Your task to perform on an android device: uninstall "WhatsApp Messenger" Image 0: 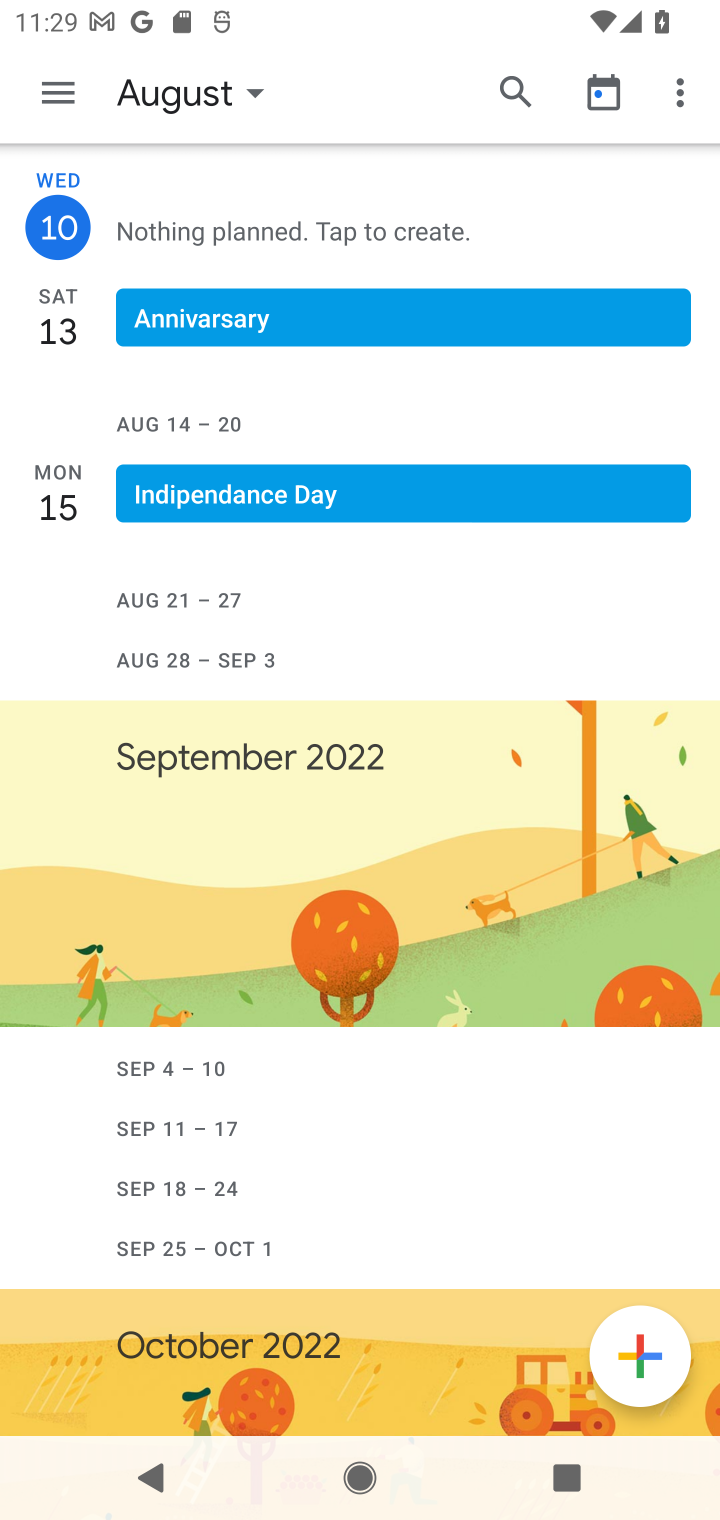
Step 0: press home button
Your task to perform on an android device: uninstall "WhatsApp Messenger" Image 1: 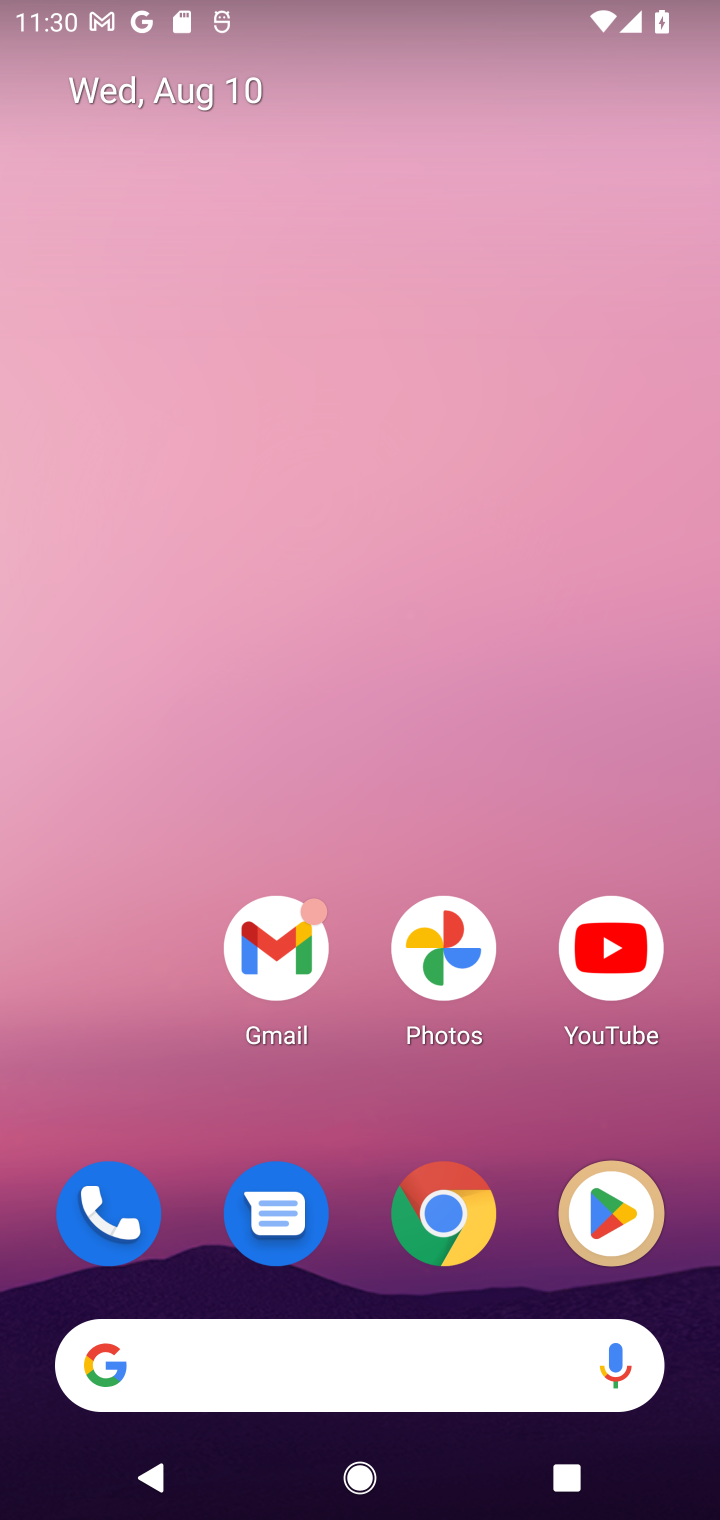
Step 1: drag from (261, 1275) to (255, 194)
Your task to perform on an android device: uninstall "WhatsApp Messenger" Image 2: 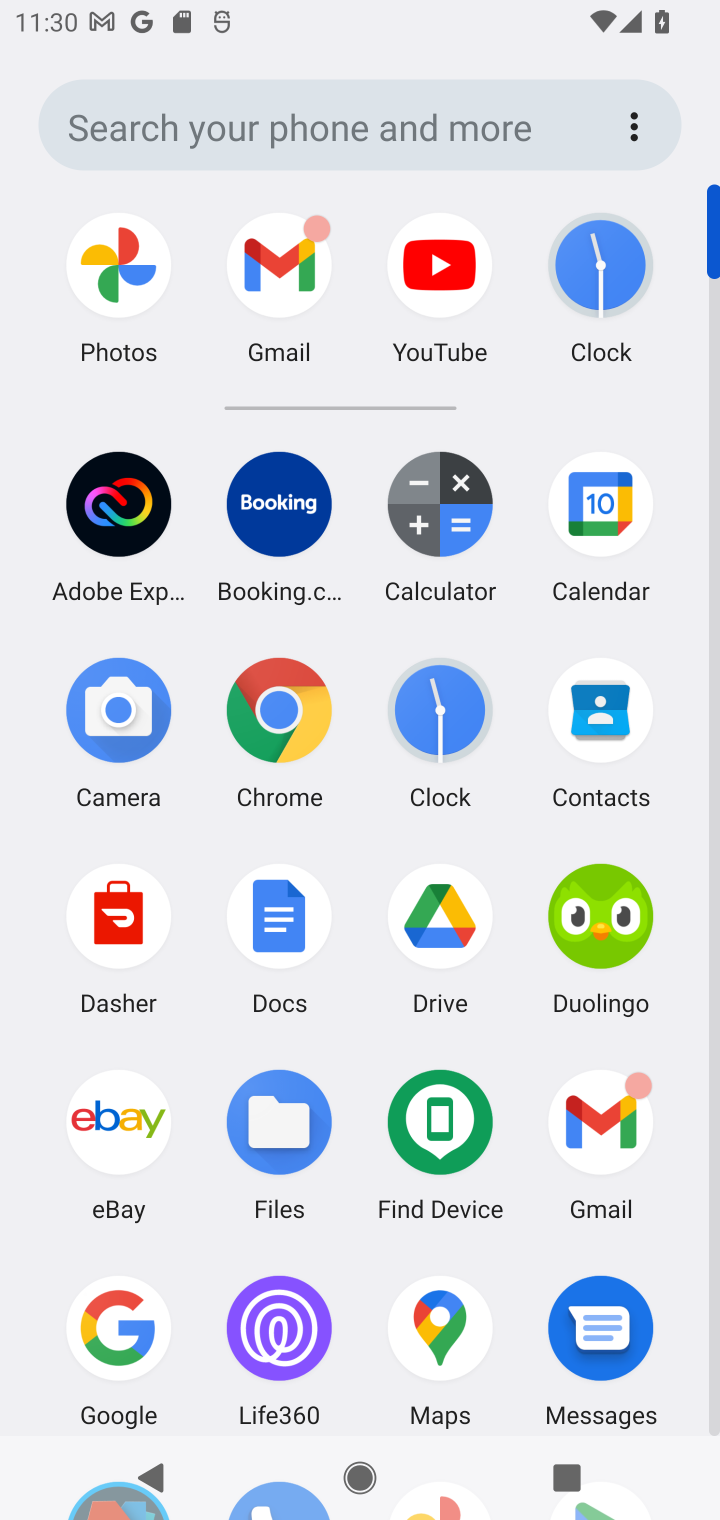
Step 2: drag from (507, 1289) to (508, 751)
Your task to perform on an android device: uninstall "WhatsApp Messenger" Image 3: 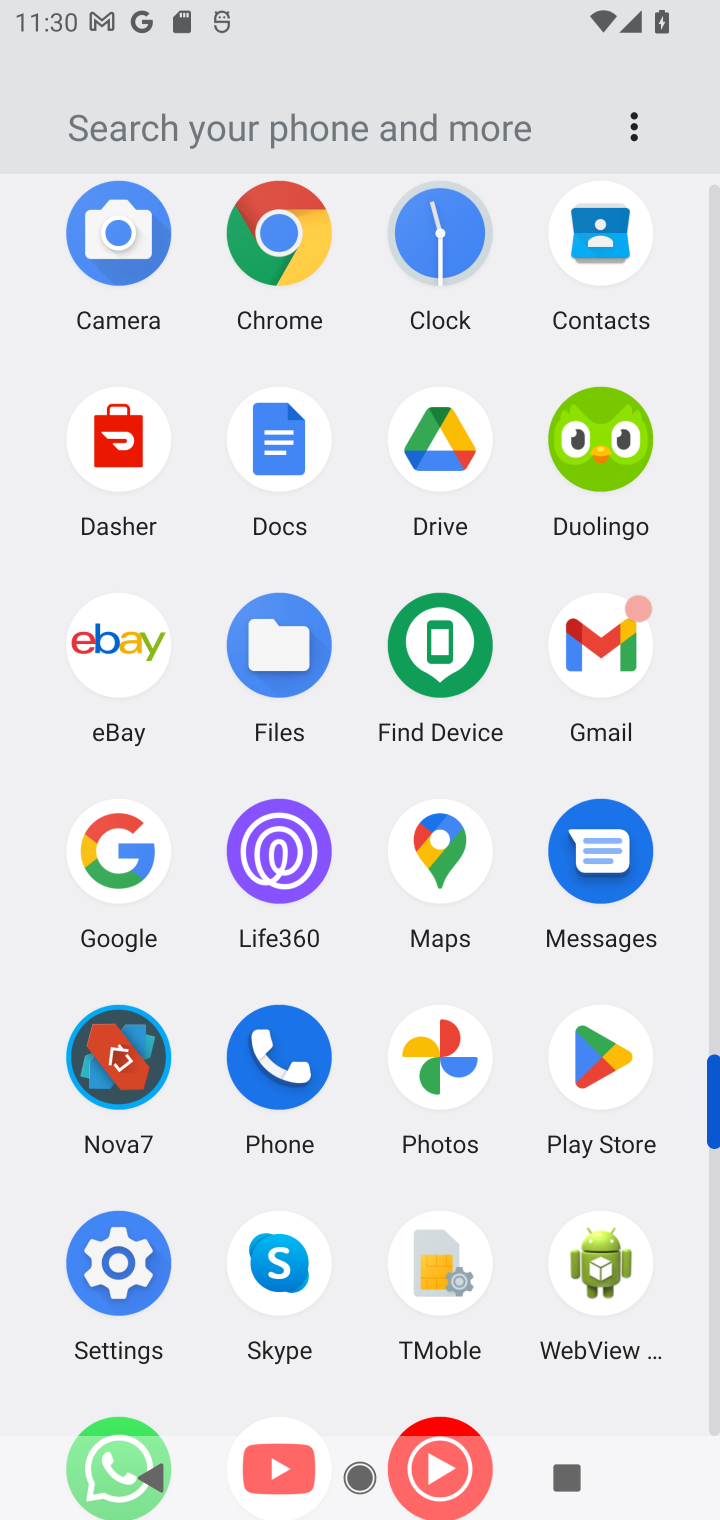
Step 3: click (603, 1056)
Your task to perform on an android device: uninstall "WhatsApp Messenger" Image 4: 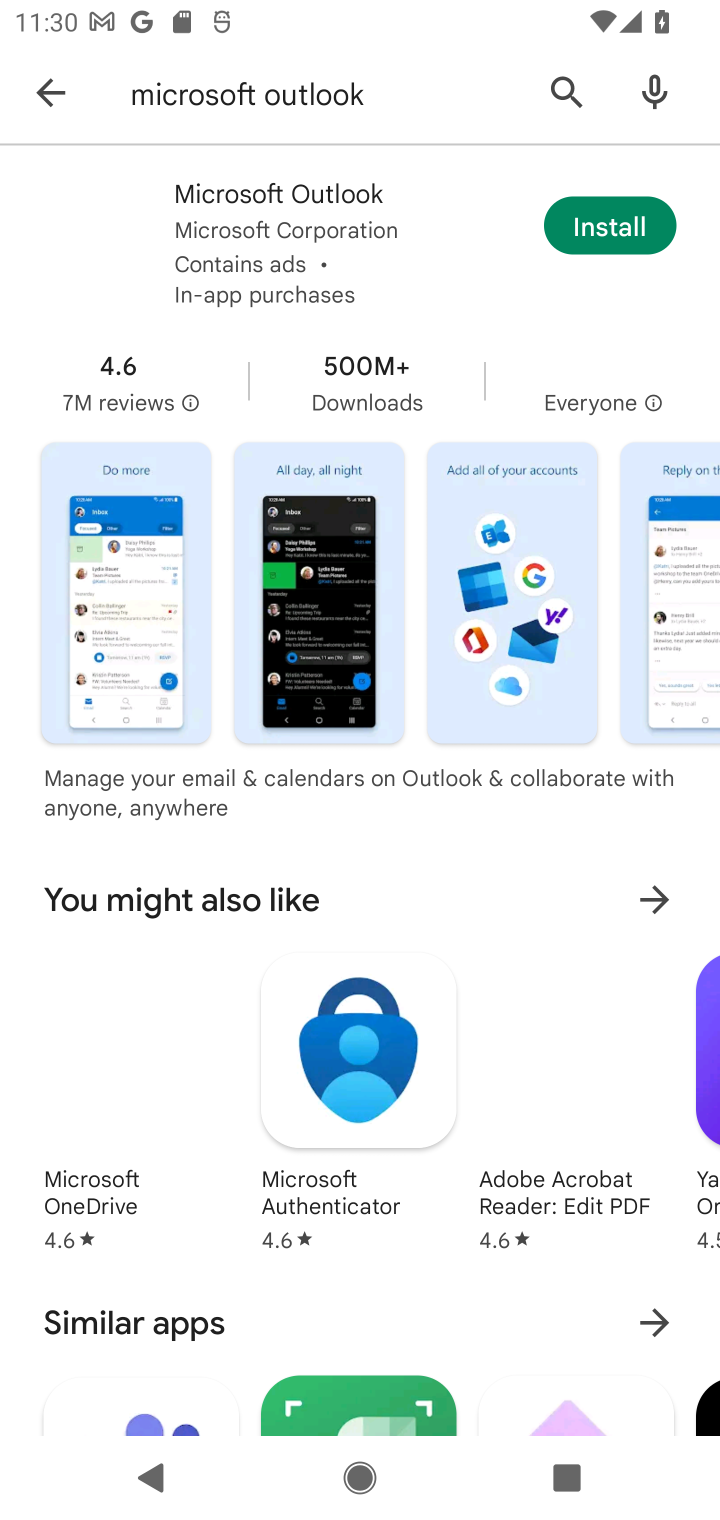
Step 4: press back button
Your task to perform on an android device: uninstall "WhatsApp Messenger" Image 5: 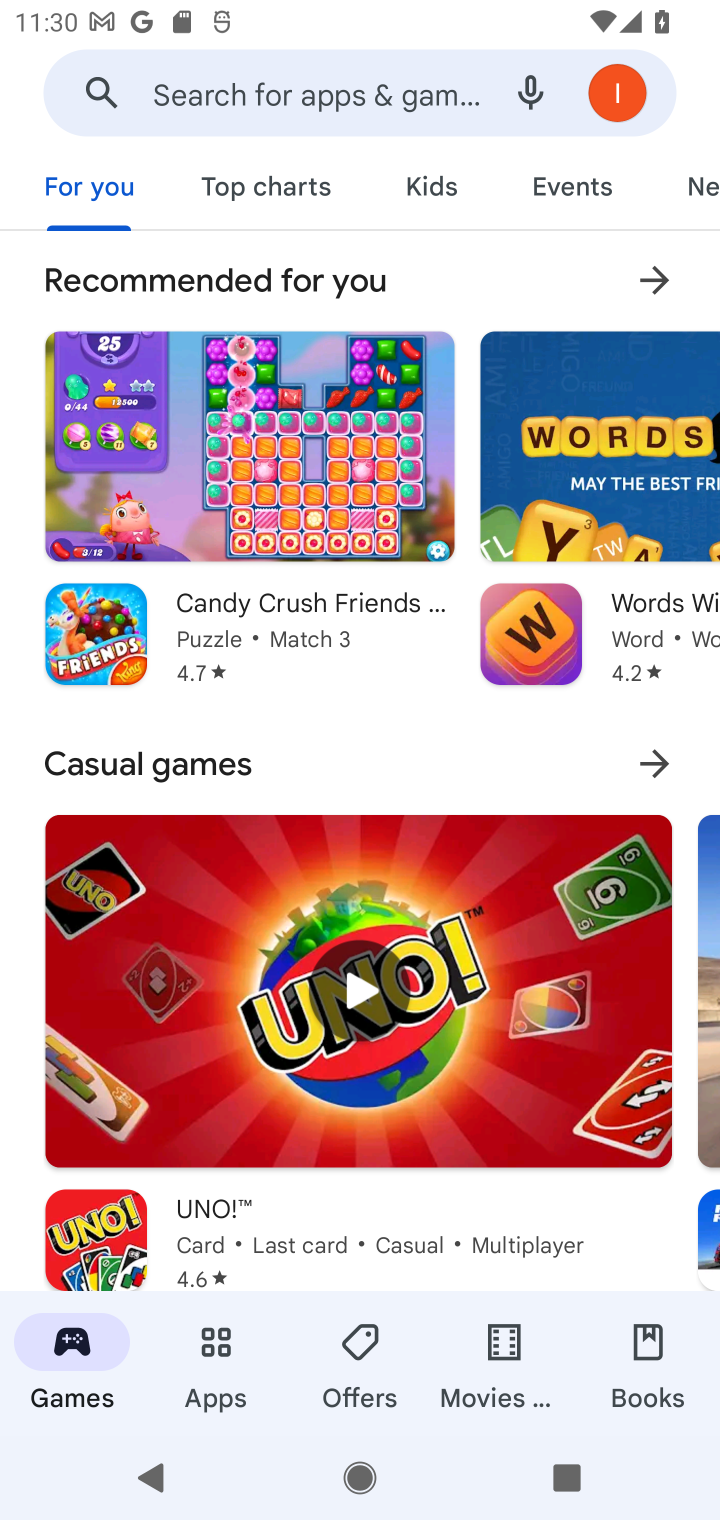
Step 5: click (286, 87)
Your task to perform on an android device: uninstall "WhatsApp Messenger" Image 6: 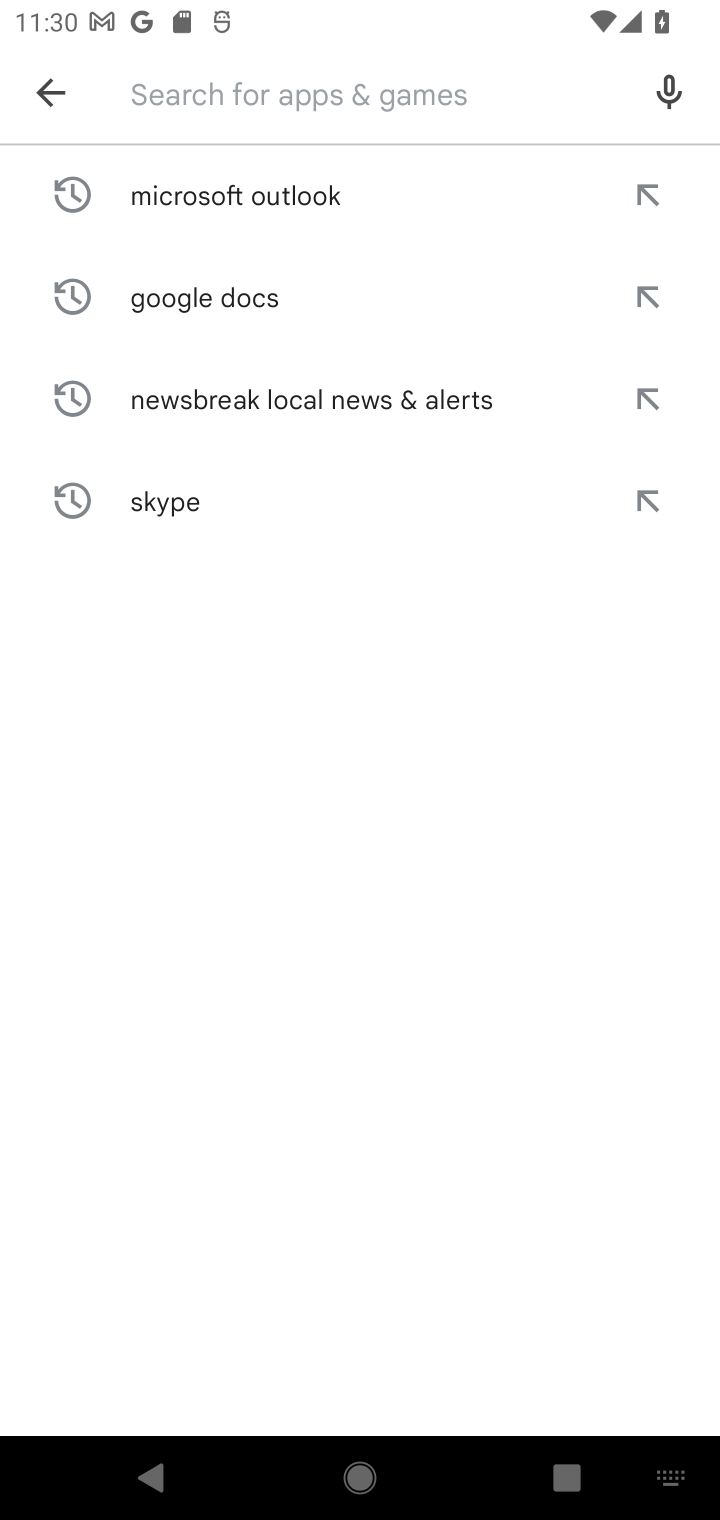
Step 6: click (239, 96)
Your task to perform on an android device: uninstall "WhatsApp Messenger" Image 7: 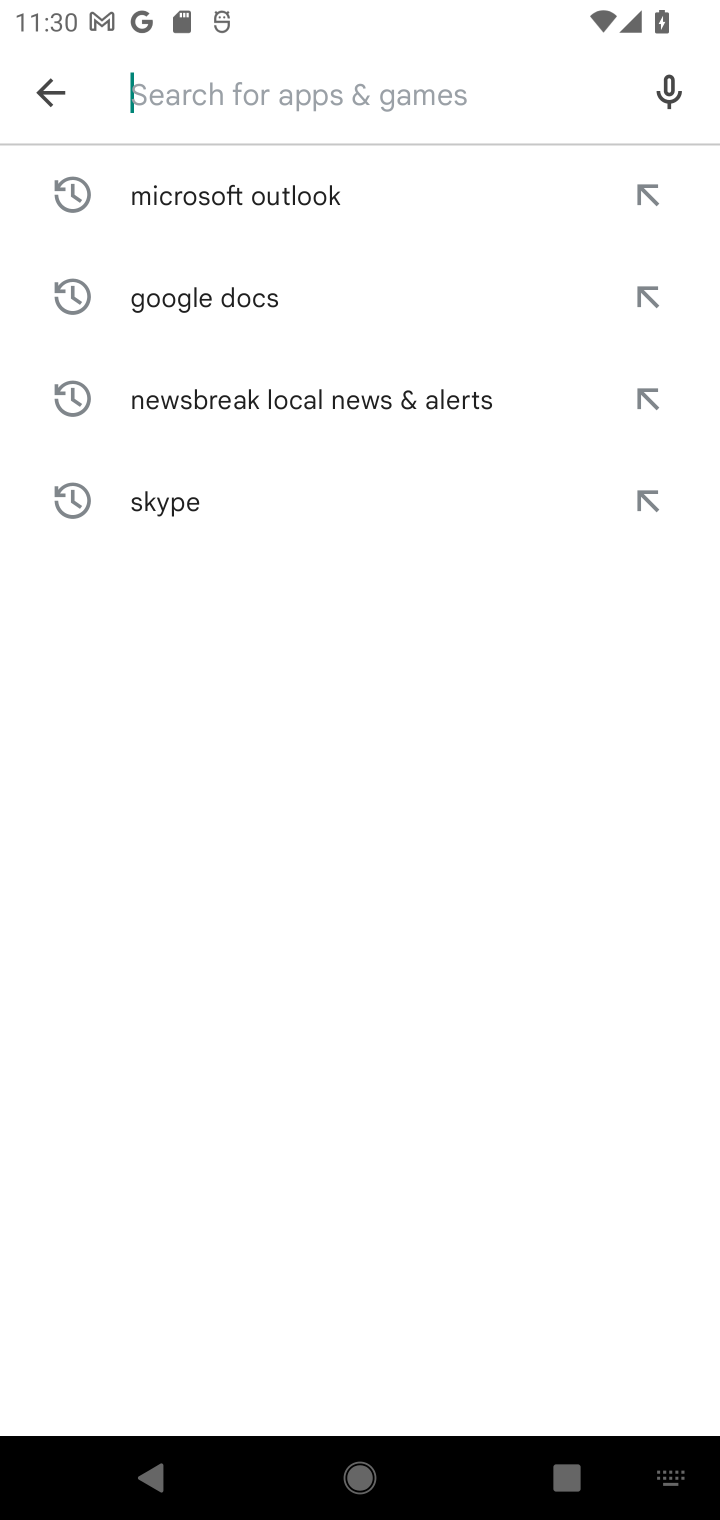
Step 7: type "WhatsApp Messenger"
Your task to perform on an android device: uninstall "WhatsApp Messenger" Image 8: 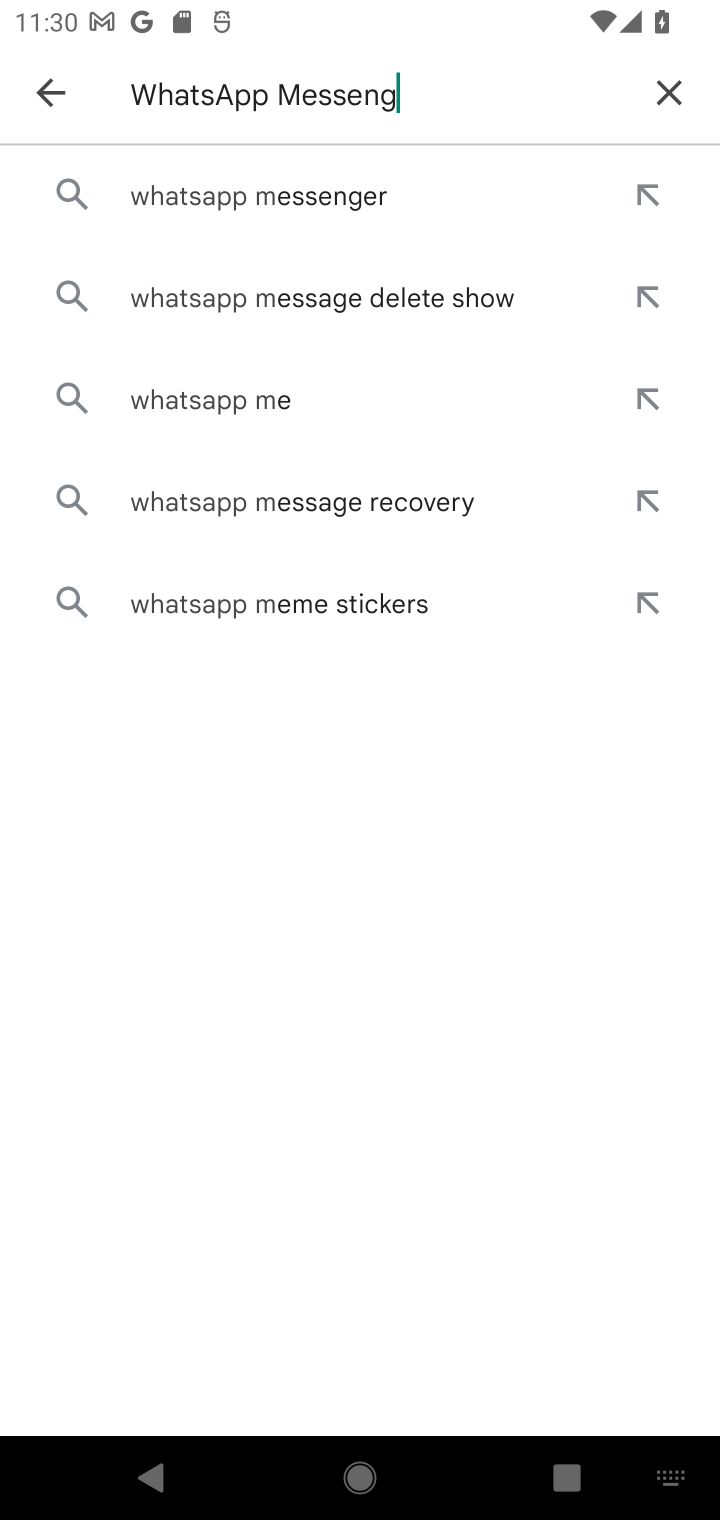
Step 8: type ""
Your task to perform on an android device: uninstall "WhatsApp Messenger" Image 9: 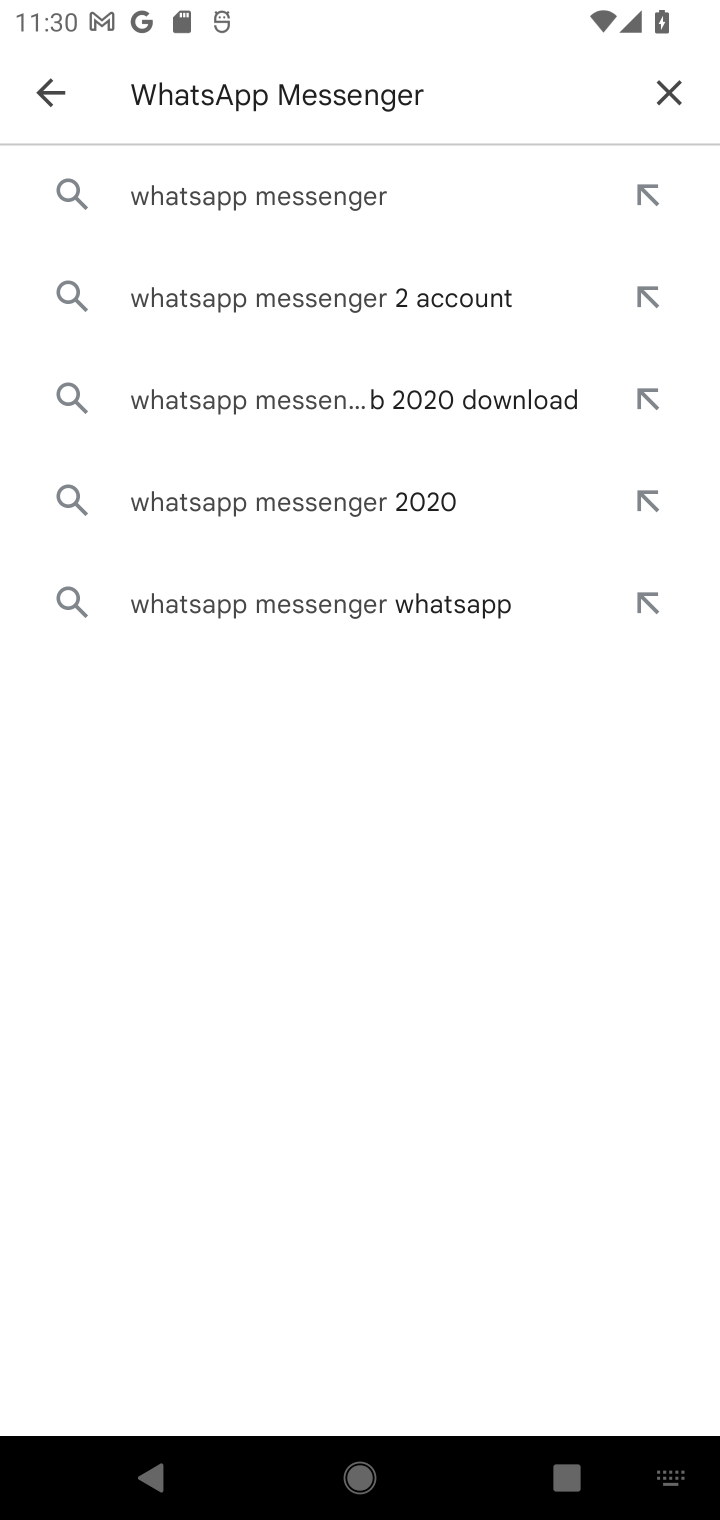
Step 9: click (267, 208)
Your task to perform on an android device: uninstall "WhatsApp Messenger" Image 10: 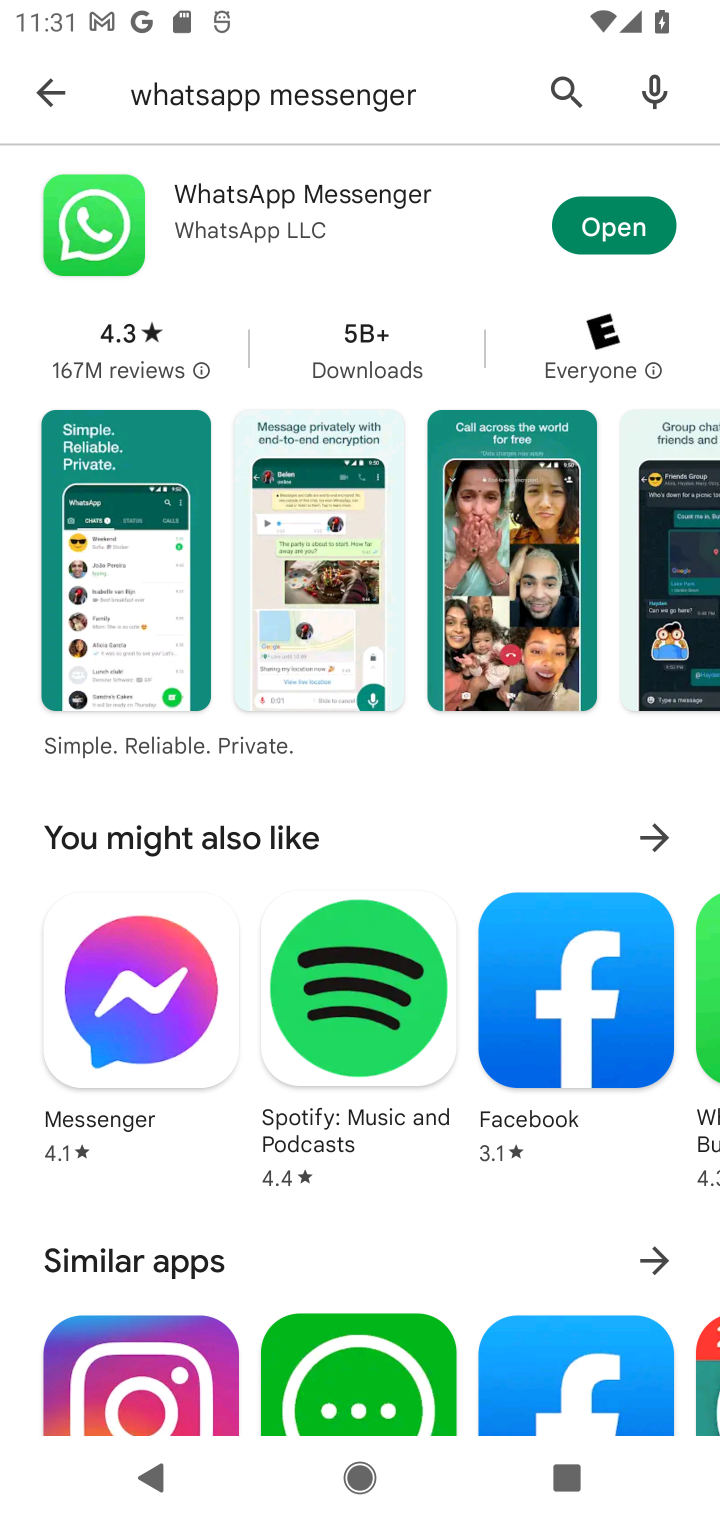
Step 10: click (270, 211)
Your task to perform on an android device: uninstall "WhatsApp Messenger" Image 11: 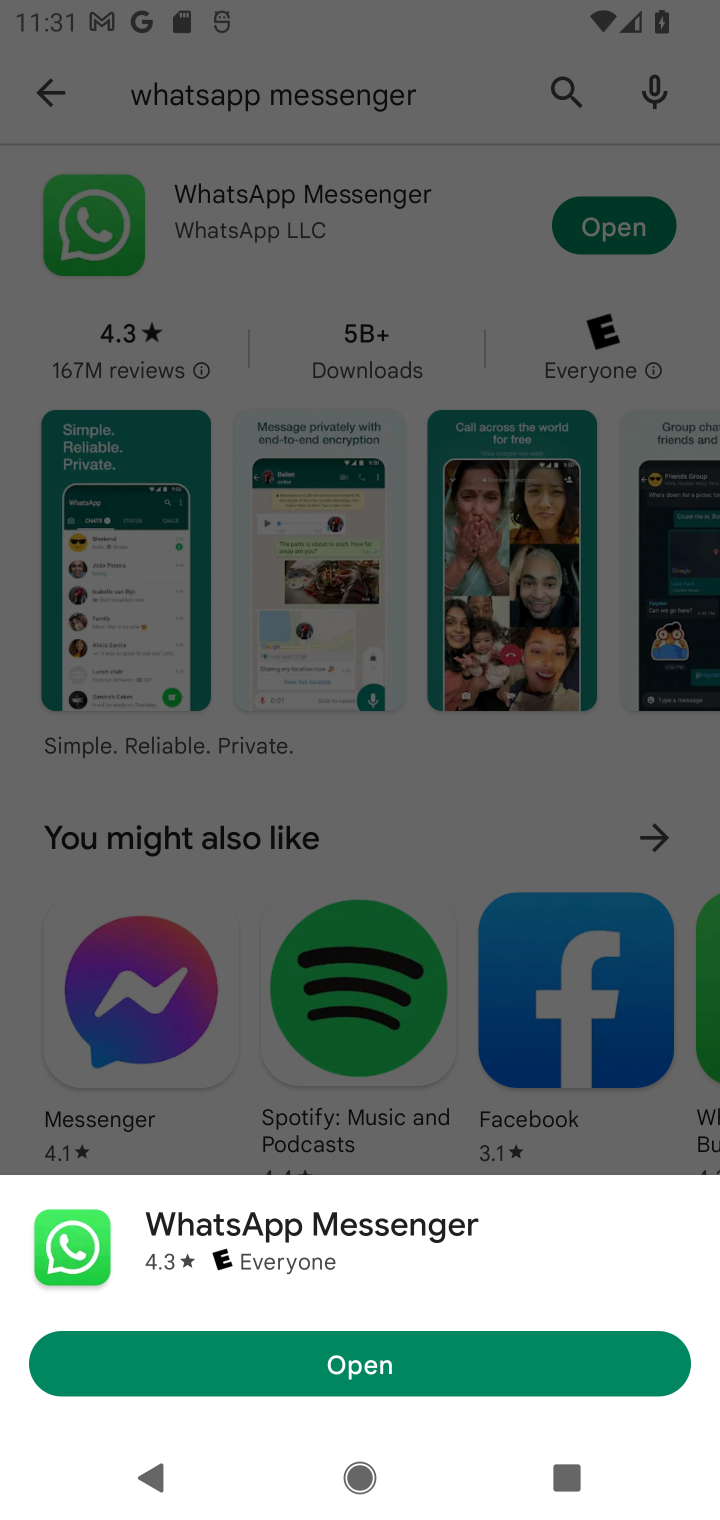
Step 11: click (267, 208)
Your task to perform on an android device: uninstall "WhatsApp Messenger" Image 12: 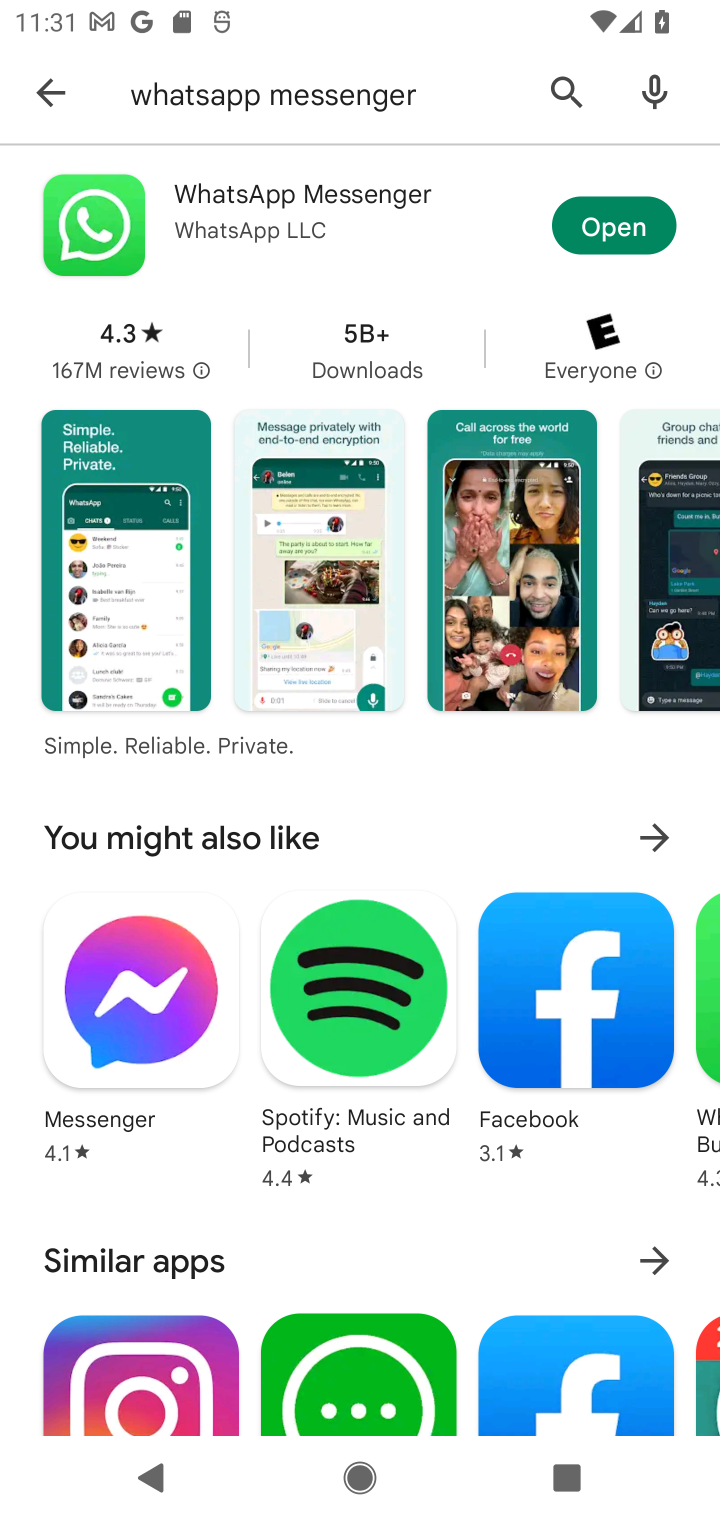
Step 12: click (105, 196)
Your task to perform on an android device: uninstall "WhatsApp Messenger" Image 13: 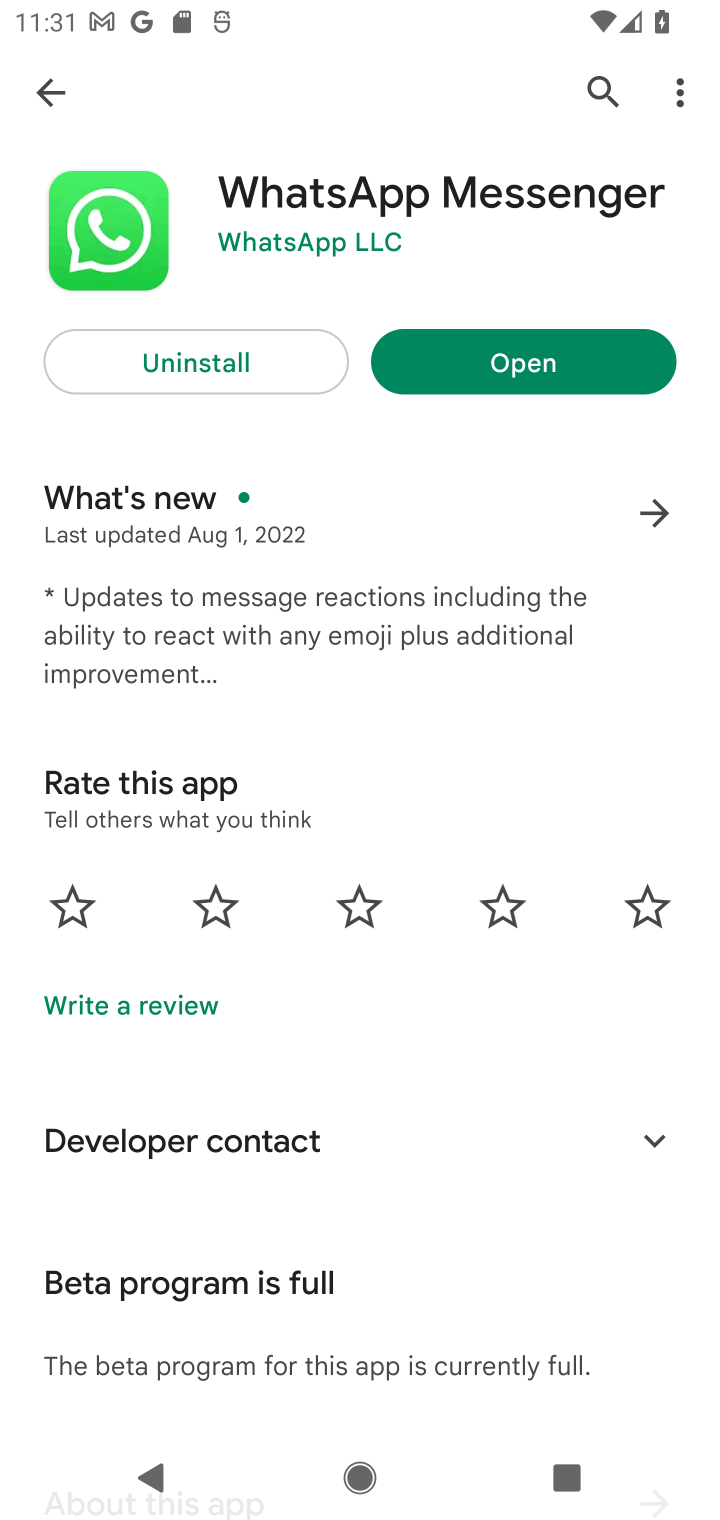
Step 13: click (188, 370)
Your task to perform on an android device: uninstall "WhatsApp Messenger" Image 14: 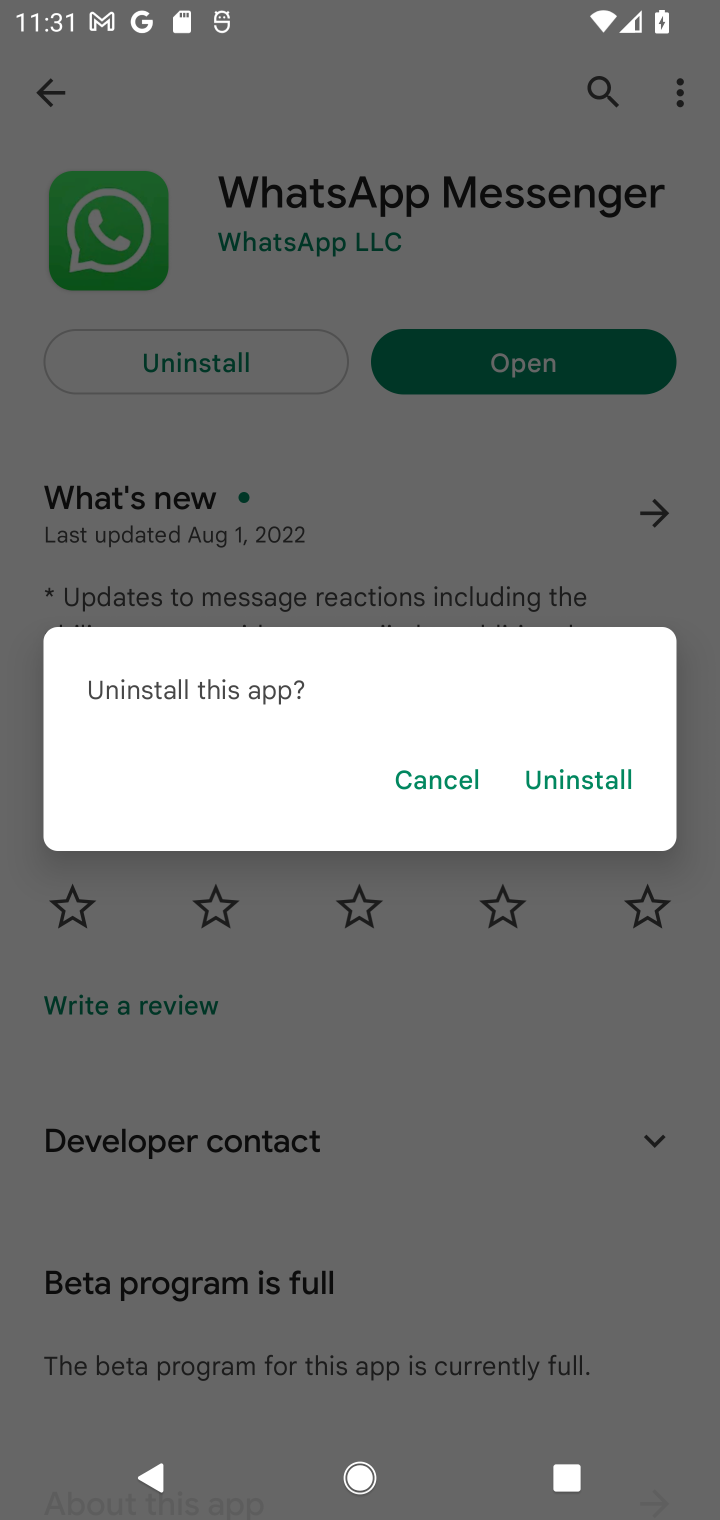
Step 14: click (571, 779)
Your task to perform on an android device: uninstall "WhatsApp Messenger" Image 15: 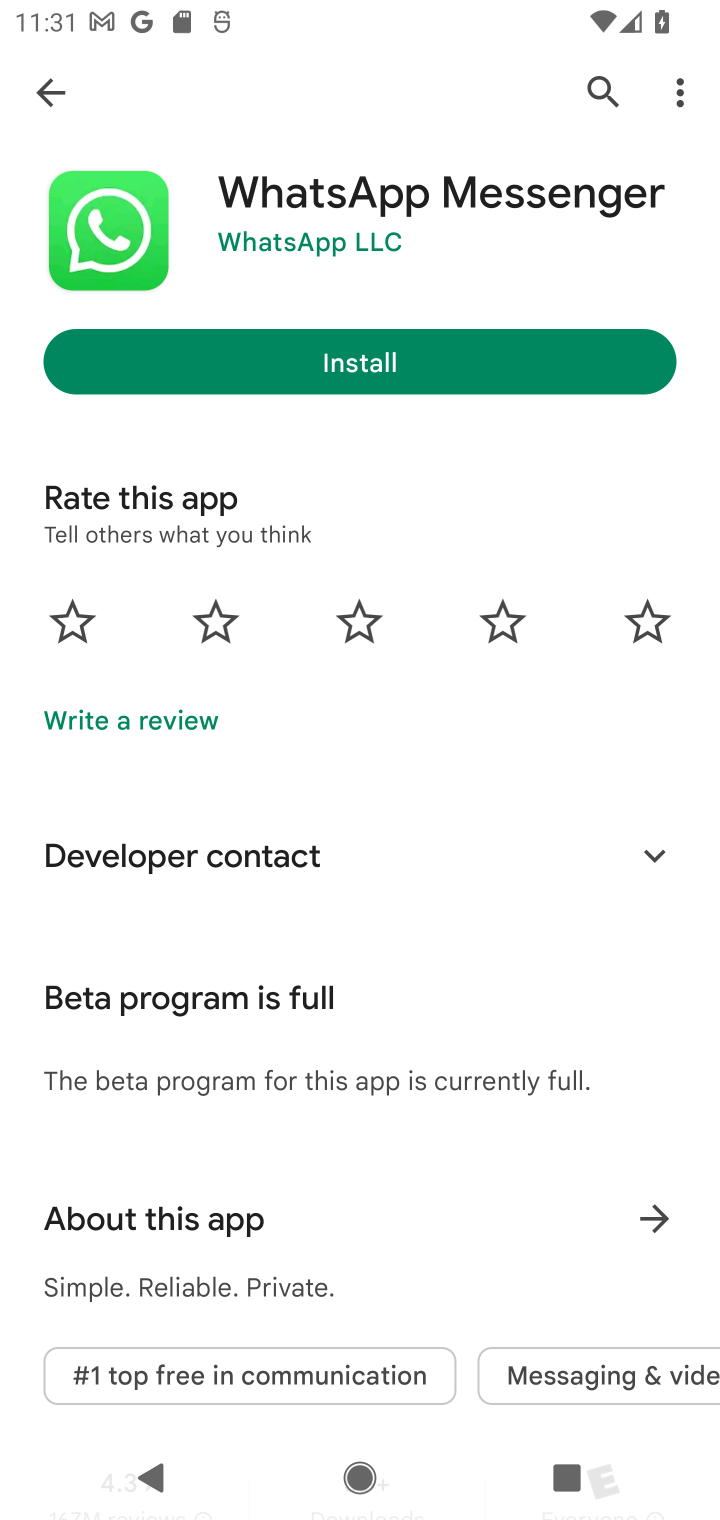
Step 15: task complete